Your task to perform on an android device: make emails show in primary in the gmail app Image 0: 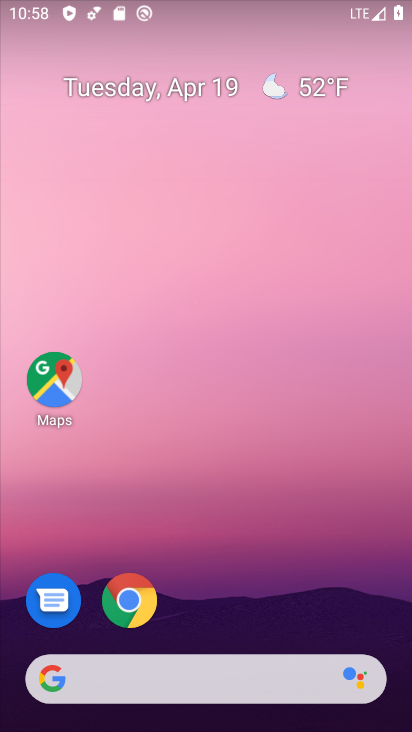
Step 0: drag from (230, 653) to (367, 23)
Your task to perform on an android device: make emails show in primary in the gmail app Image 1: 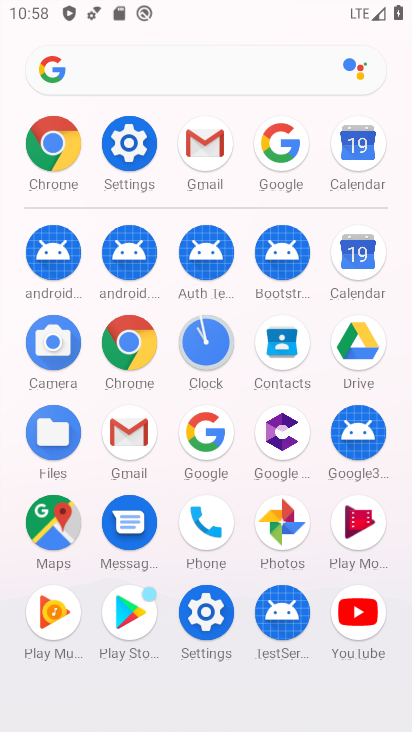
Step 1: click (120, 448)
Your task to perform on an android device: make emails show in primary in the gmail app Image 2: 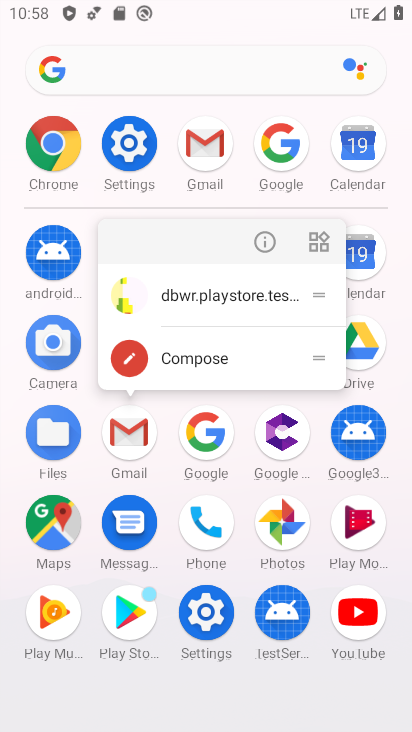
Step 2: click (121, 450)
Your task to perform on an android device: make emails show in primary in the gmail app Image 3: 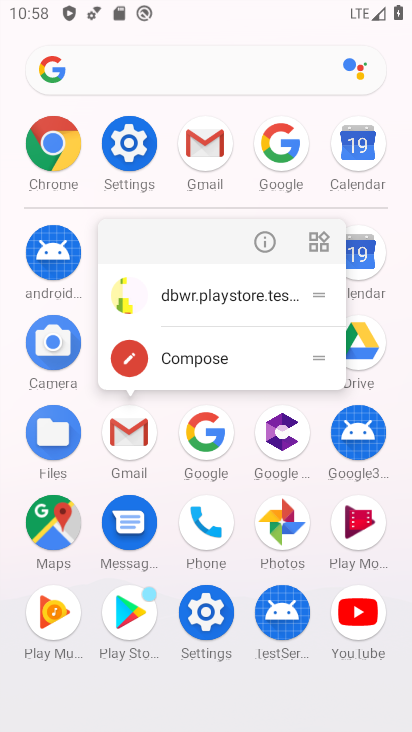
Step 3: click (135, 431)
Your task to perform on an android device: make emails show in primary in the gmail app Image 4: 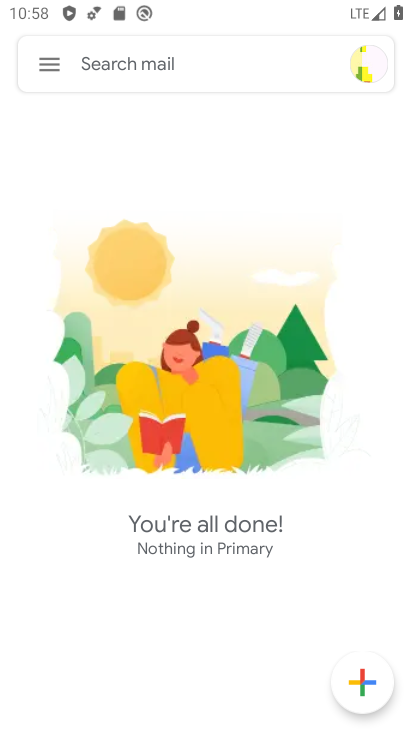
Step 4: click (36, 64)
Your task to perform on an android device: make emails show in primary in the gmail app Image 5: 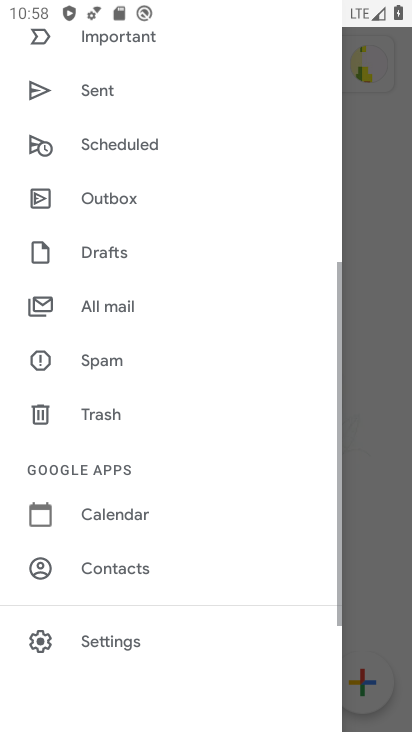
Step 5: drag from (81, 104) to (79, 560)
Your task to perform on an android device: make emails show in primary in the gmail app Image 6: 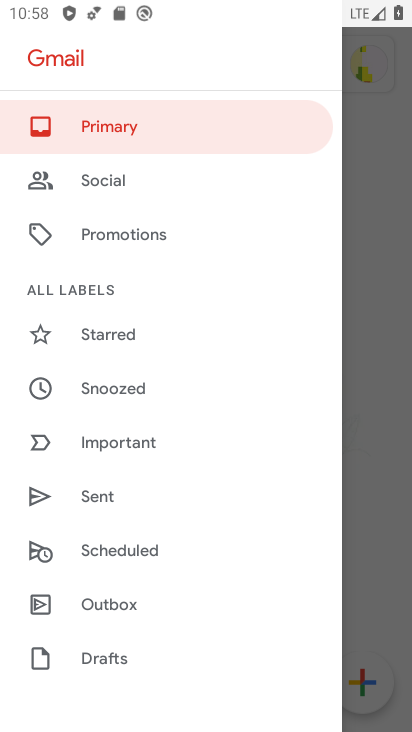
Step 6: click (111, 111)
Your task to perform on an android device: make emails show in primary in the gmail app Image 7: 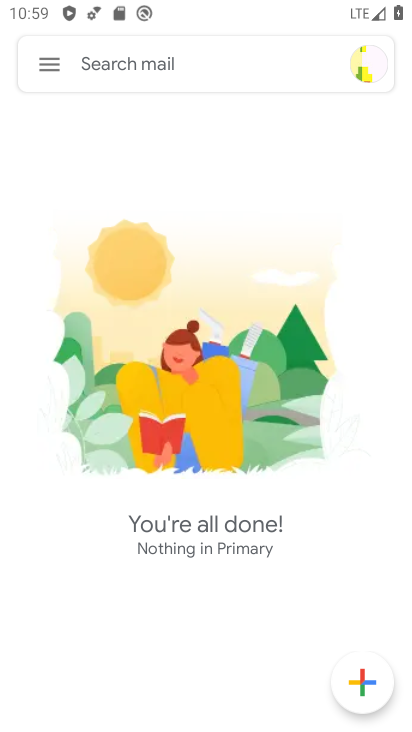
Step 7: task complete